Your task to perform on an android device: Open Chrome and go to settings Image 0: 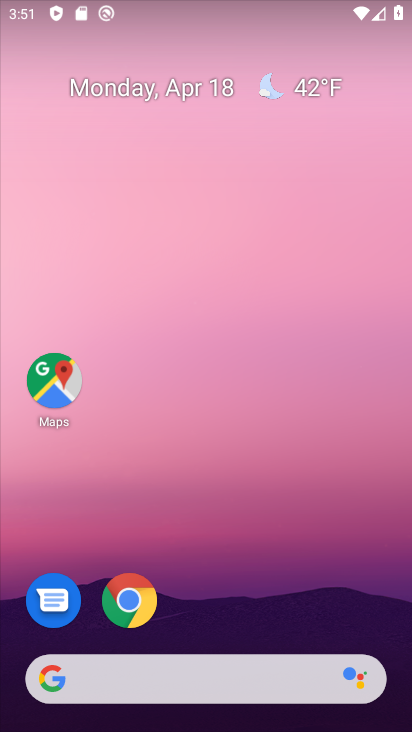
Step 0: click (121, 608)
Your task to perform on an android device: Open Chrome and go to settings Image 1: 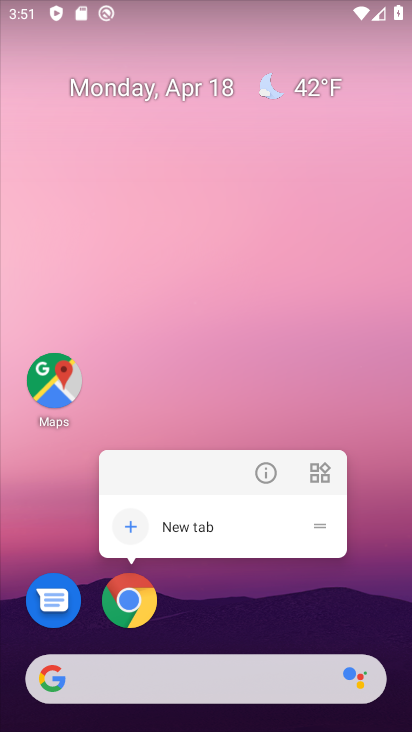
Step 1: click (125, 606)
Your task to perform on an android device: Open Chrome and go to settings Image 2: 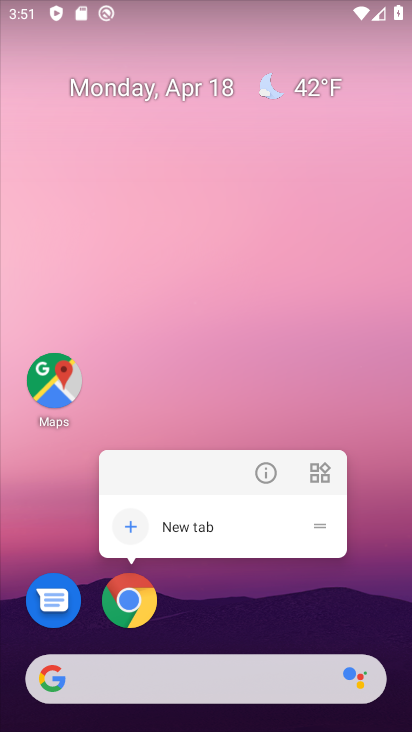
Step 2: click (131, 615)
Your task to perform on an android device: Open Chrome and go to settings Image 3: 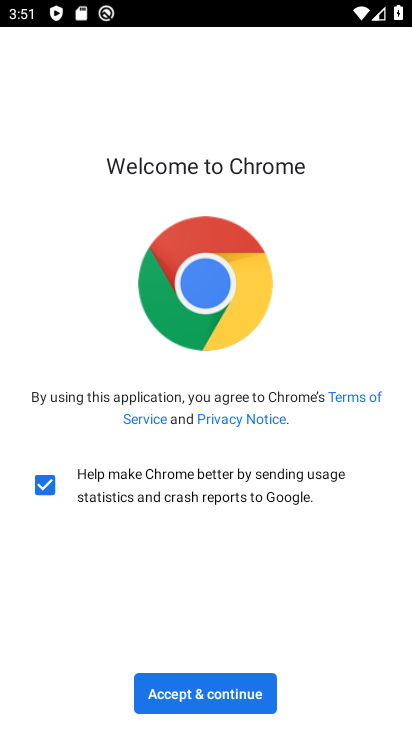
Step 3: click (244, 696)
Your task to perform on an android device: Open Chrome and go to settings Image 4: 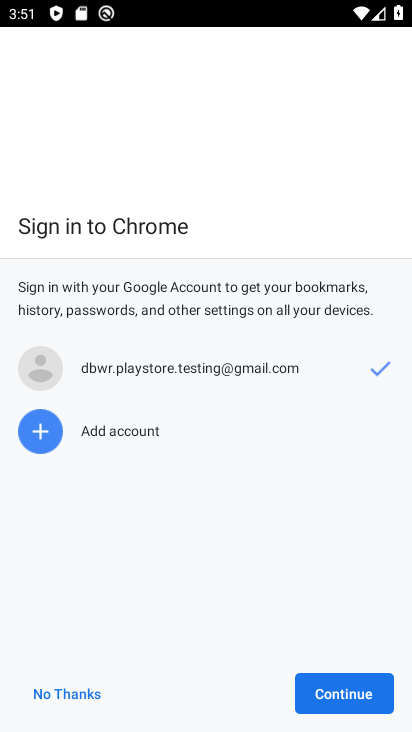
Step 4: click (346, 701)
Your task to perform on an android device: Open Chrome and go to settings Image 5: 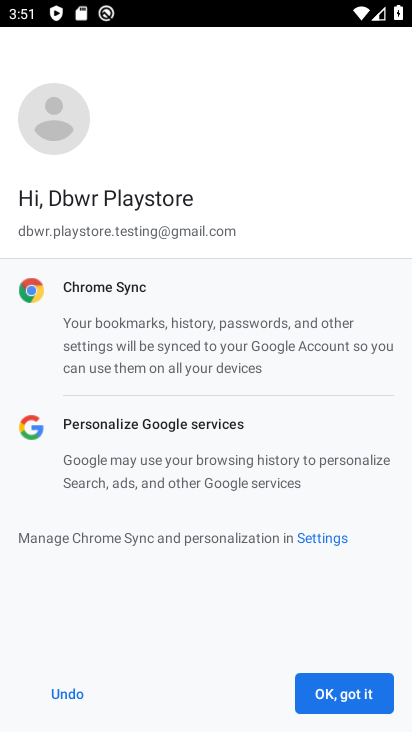
Step 5: click (346, 701)
Your task to perform on an android device: Open Chrome and go to settings Image 6: 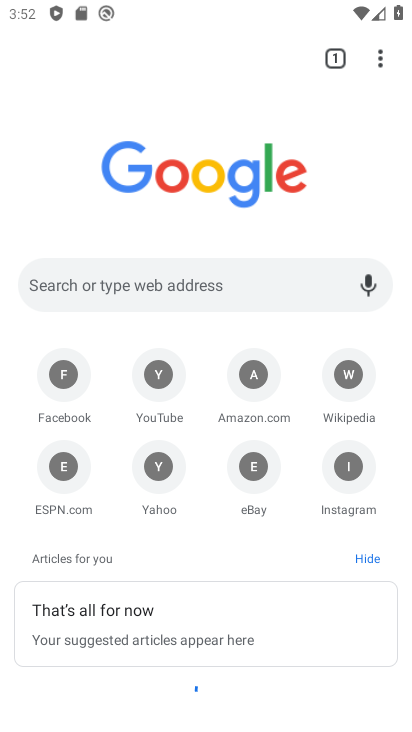
Step 6: click (396, 69)
Your task to perform on an android device: Open Chrome and go to settings Image 7: 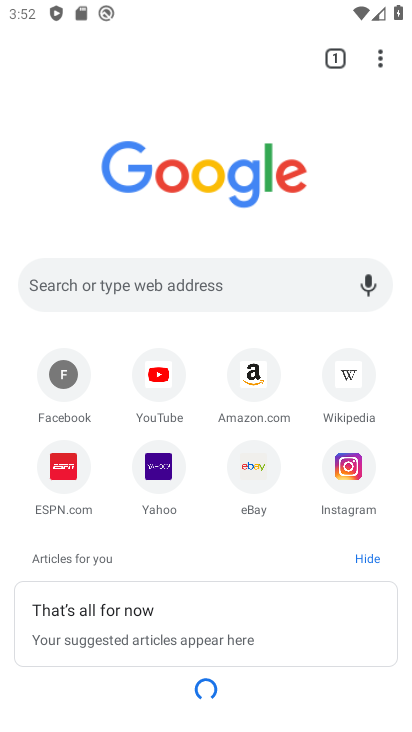
Step 7: task complete